Your task to perform on an android device: turn off javascript in the chrome app Image 0: 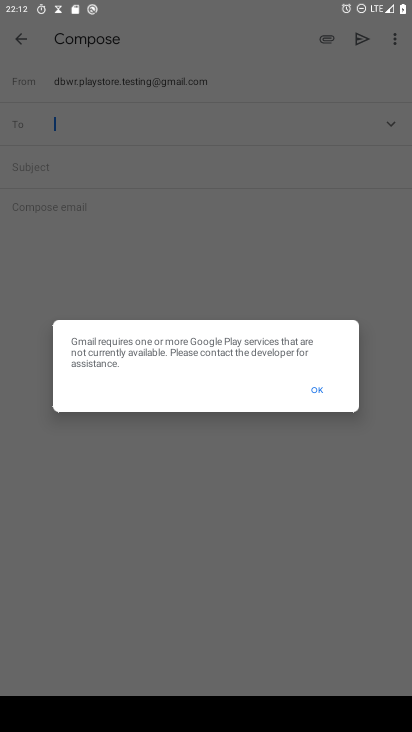
Step 0: click (314, 398)
Your task to perform on an android device: turn off javascript in the chrome app Image 1: 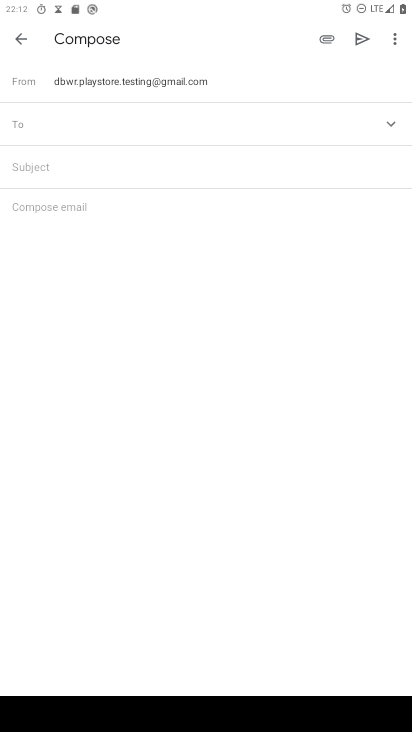
Step 1: press home button
Your task to perform on an android device: turn off javascript in the chrome app Image 2: 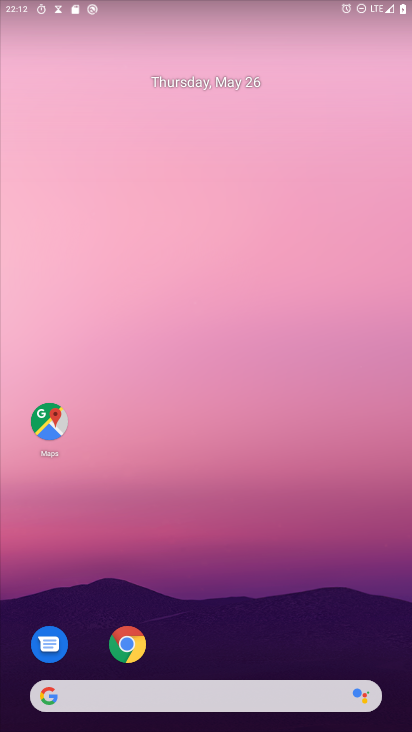
Step 2: drag from (218, 568) to (289, 159)
Your task to perform on an android device: turn off javascript in the chrome app Image 3: 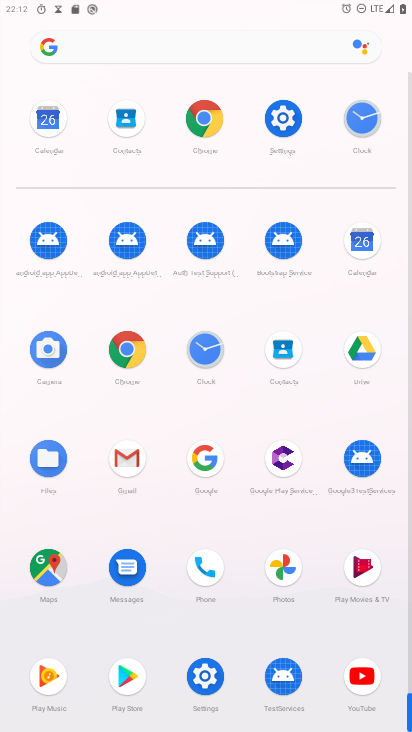
Step 3: click (122, 353)
Your task to perform on an android device: turn off javascript in the chrome app Image 4: 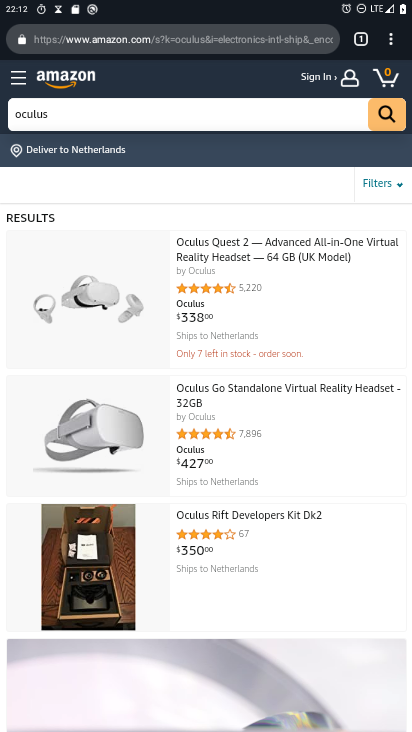
Step 4: drag from (396, 37) to (290, 439)
Your task to perform on an android device: turn off javascript in the chrome app Image 5: 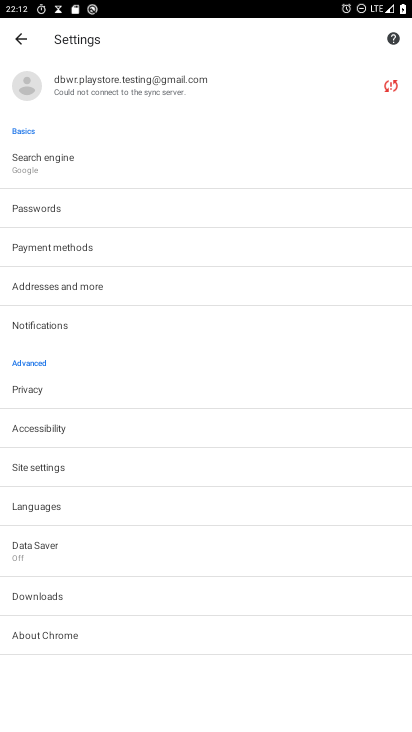
Step 5: click (93, 469)
Your task to perform on an android device: turn off javascript in the chrome app Image 6: 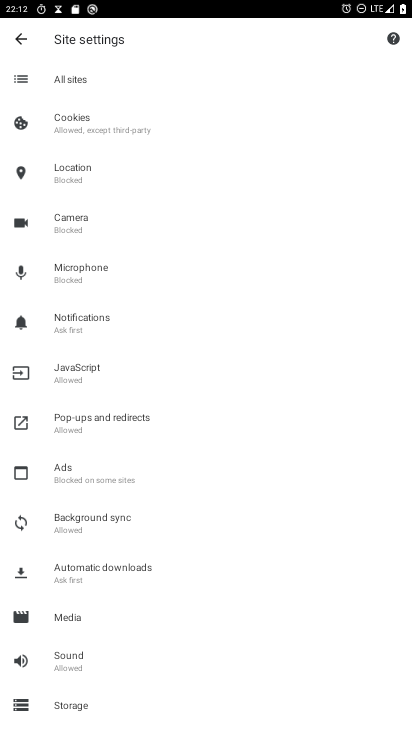
Step 6: click (123, 369)
Your task to perform on an android device: turn off javascript in the chrome app Image 7: 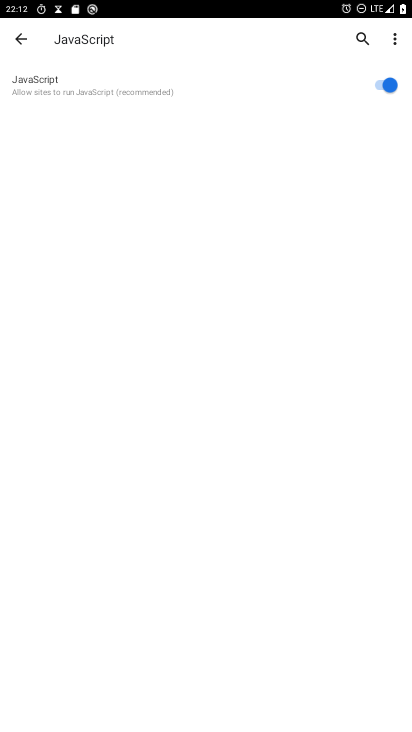
Step 7: click (382, 83)
Your task to perform on an android device: turn off javascript in the chrome app Image 8: 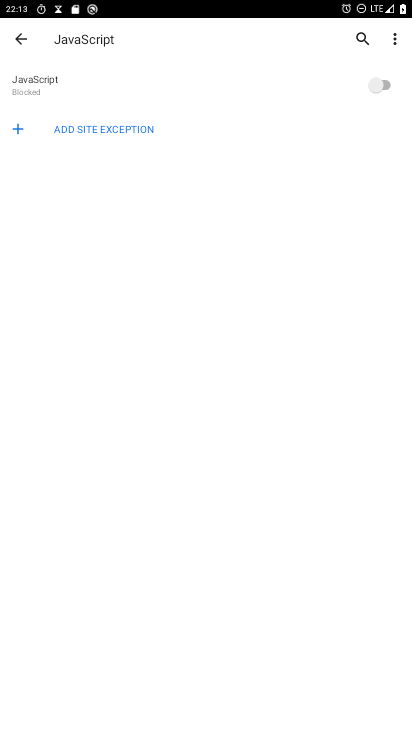
Step 8: task complete